Your task to perform on an android device: empty trash in google photos Image 0: 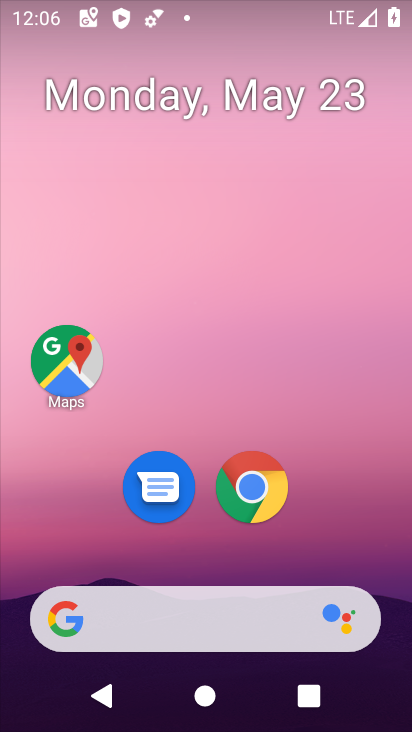
Step 0: drag from (210, 433) to (300, 16)
Your task to perform on an android device: empty trash in google photos Image 1: 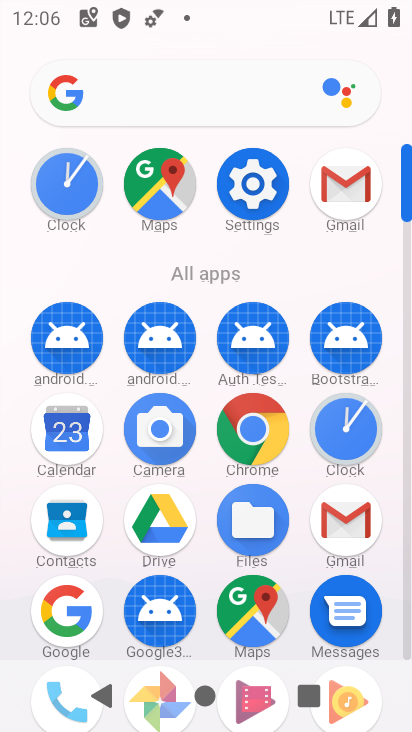
Step 1: drag from (195, 480) to (232, 223)
Your task to perform on an android device: empty trash in google photos Image 2: 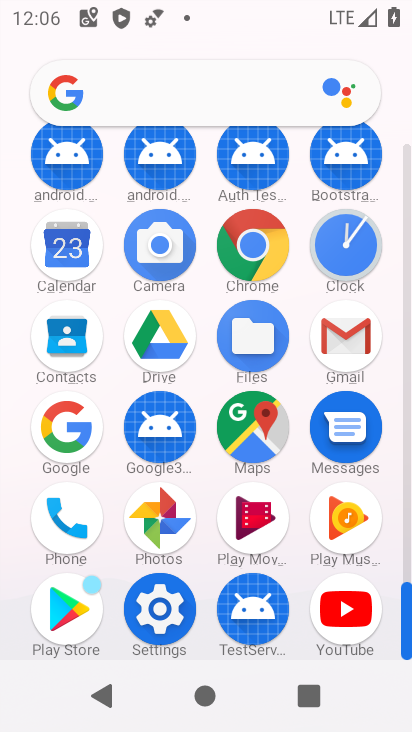
Step 2: click (175, 508)
Your task to perform on an android device: empty trash in google photos Image 3: 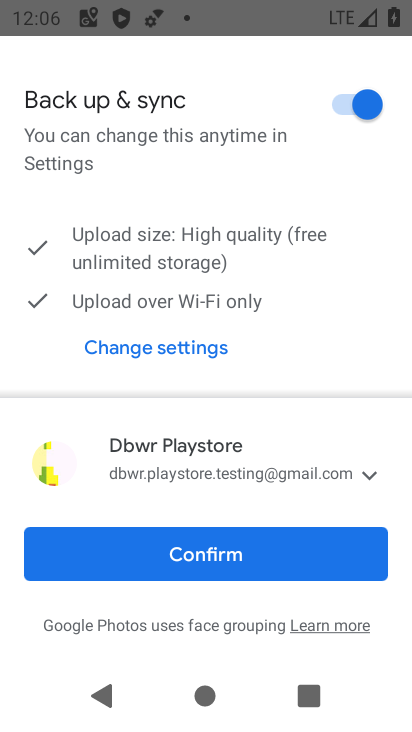
Step 3: click (197, 553)
Your task to perform on an android device: empty trash in google photos Image 4: 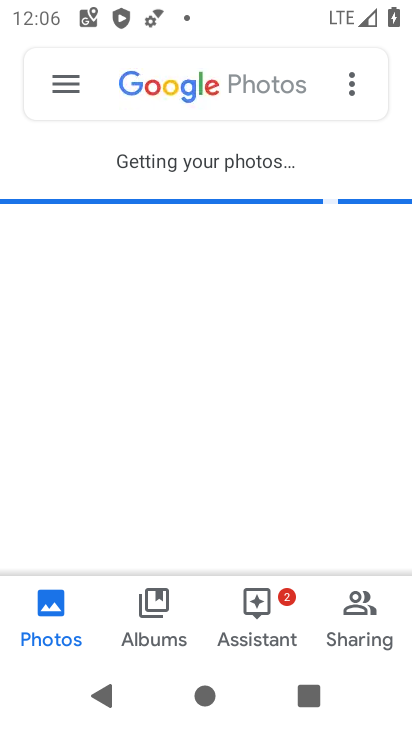
Step 4: click (71, 85)
Your task to perform on an android device: empty trash in google photos Image 5: 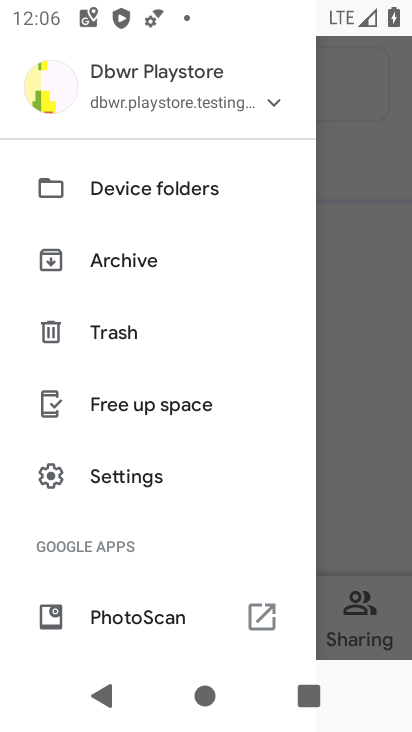
Step 5: click (119, 333)
Your task to perform on an android device: empty trash in google photos Image 6: 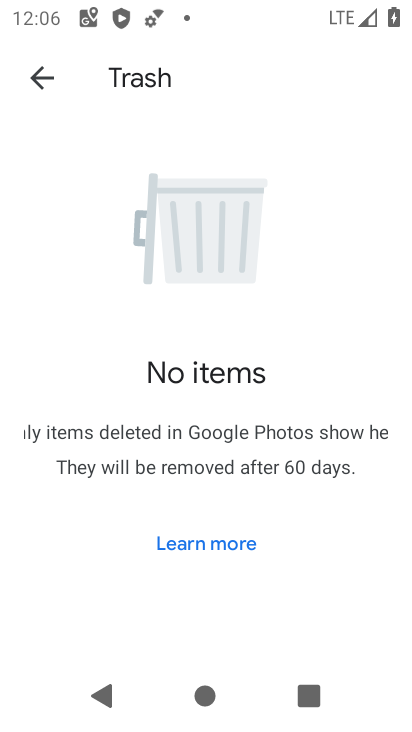
Step 6: task complete